Your task to perform on an android device: turn vacation reply on in the gmail app Image 0: 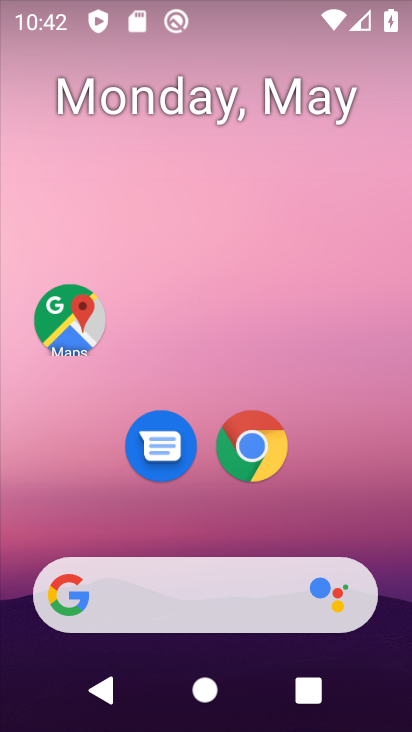
Step 0: drag from (371, 504) to (79, 354)
Your task to perform on an android device: turn vacation reply on in the gmail app Image 1: 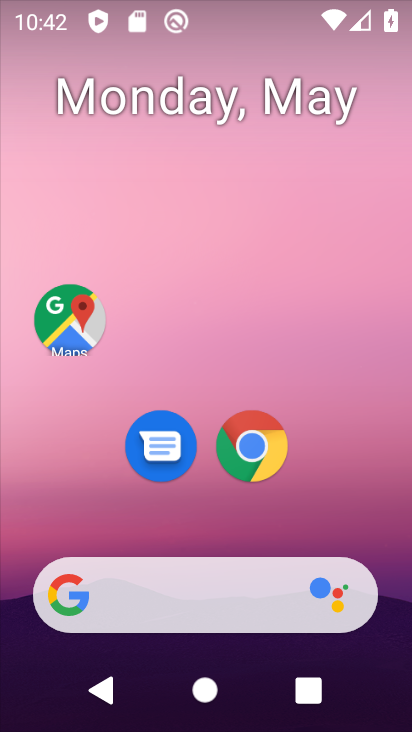
Step 1: drag from (322, 482) to (399, 7)
Your task to perform on an android device: turn vacation reply on in the gmail app Image 2: 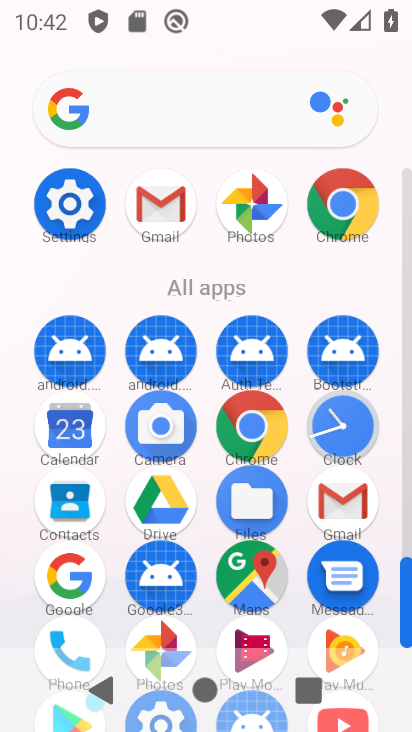
Step 2: click (190, 191)
Your task to perform on an android device: turn vacation reply on in the gmail app Image 3: 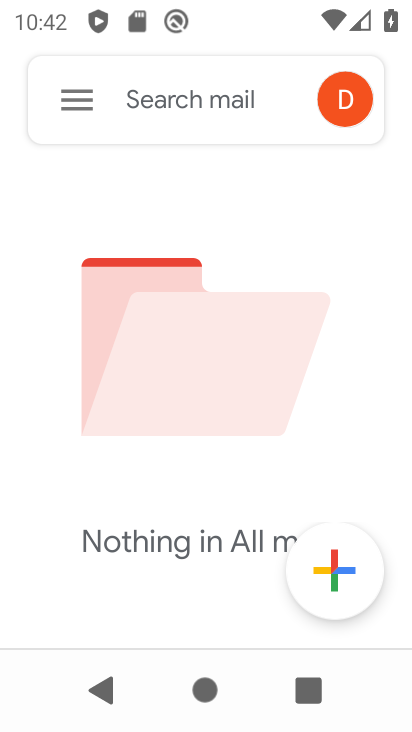
Step 3: click (105, 121)
Your task to perform on an android device: turn vacation reply on in the gmail app Image 4: 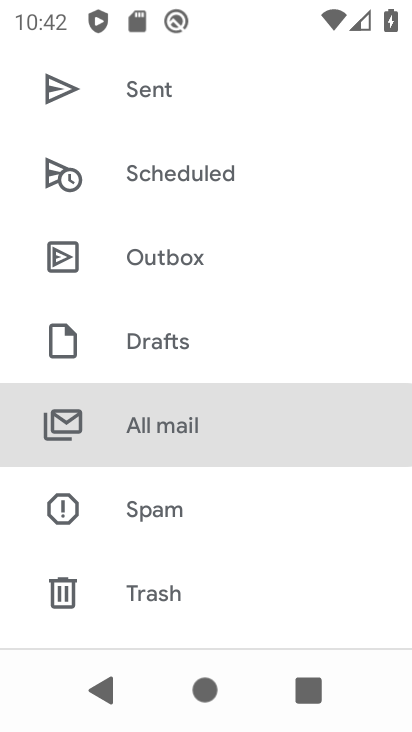
Step 4: drag from (136, 600) to (320, 146)
Your task to perform on an android device: turn vacation reply on in the gmail app Image 5: 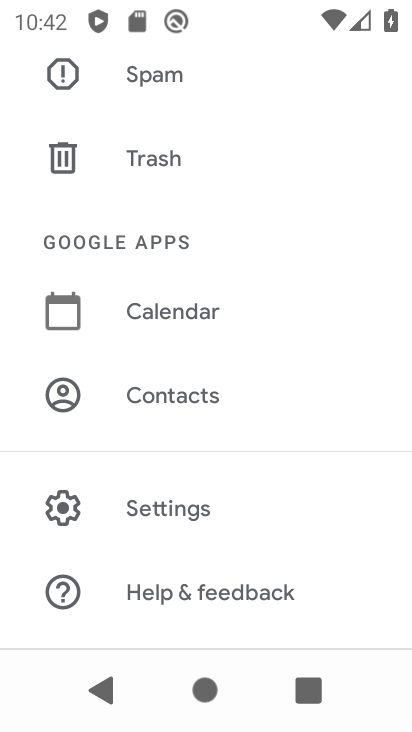
Step 5: click (129, 501)
Your task to perform on an android device: turn vacation reply on in the gmail app Image 6: 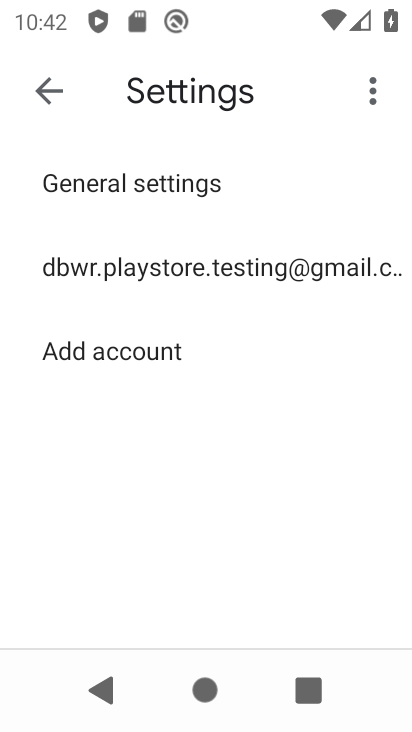
Step 6: click (251, 258)
Your task to perform on an android device: turn vacation reply on in the gmail app Image 7: 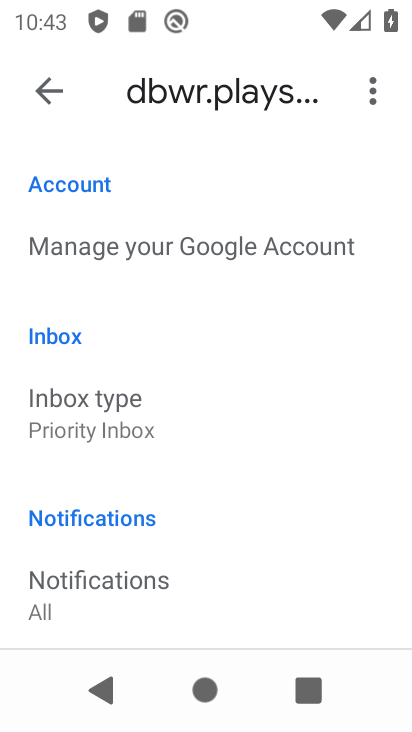
Step 7: drag from (59, 587) to (150, 136)
Your task to perform on an android device: turn vacation reply on in the gmail app Image 8: 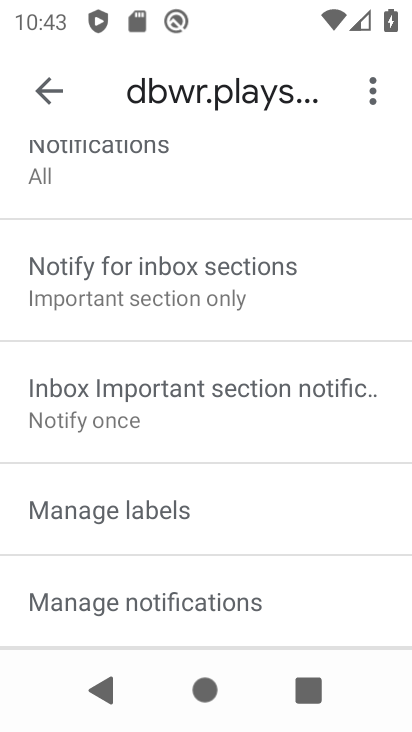
Step 8: drag from (61, 523) to (107, 68)
Your task to perform on an android device: turn vacation reply on in the gmail app Image 9: 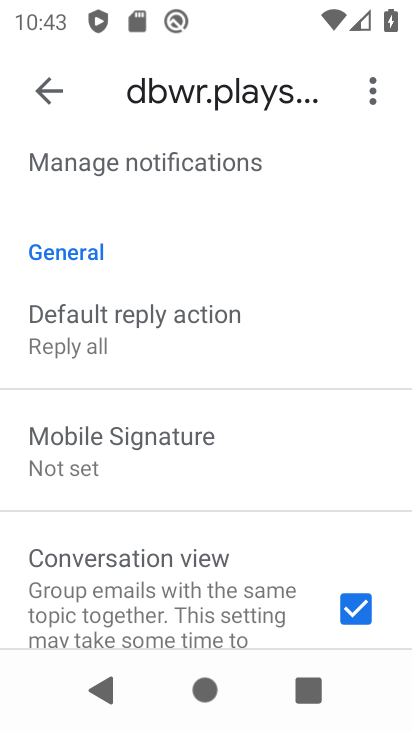
Step 9: drag from (98, 567) to (131, 145)
Your task to perform on an android device: turn vacation reply on in the gmail app Image 10: 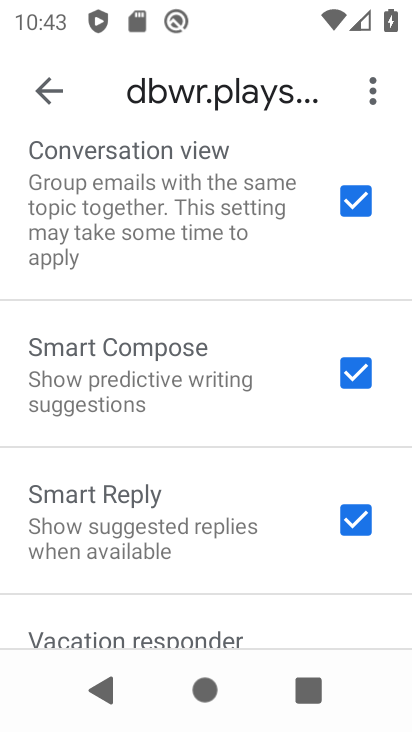
Step 10: drag from (129, 484) to (109, 283)
Your task to perform on an android device: turn vacation reply on in the gmail app Image 11: 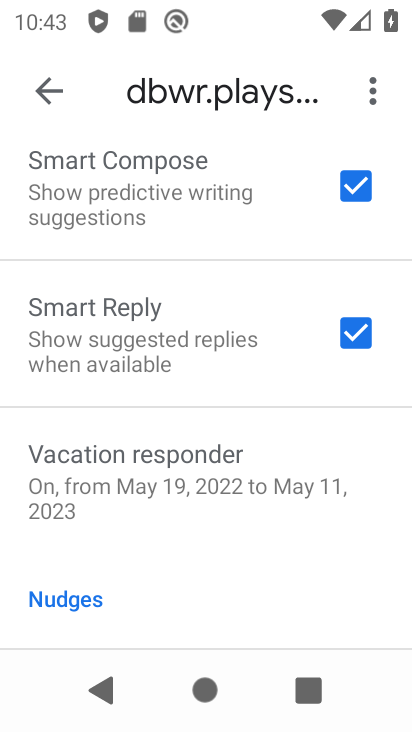
Step 11: click (206, 469)
Your task to perform on an android device: turn vacation reply on in the gmail app Image 12: 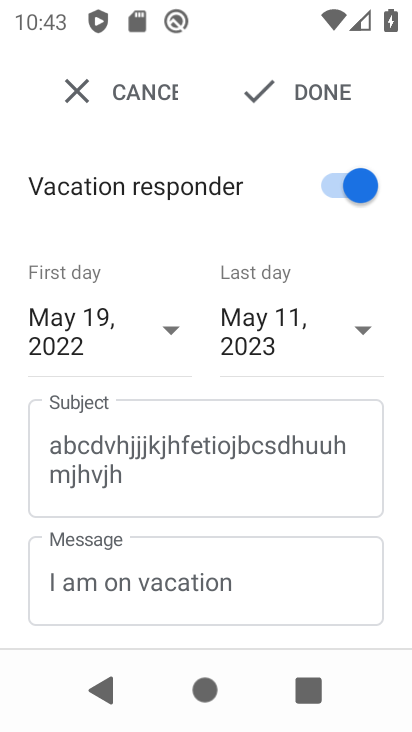
Step 12: task complete